Your task to perform on an android device: Go to location settings Image 0: 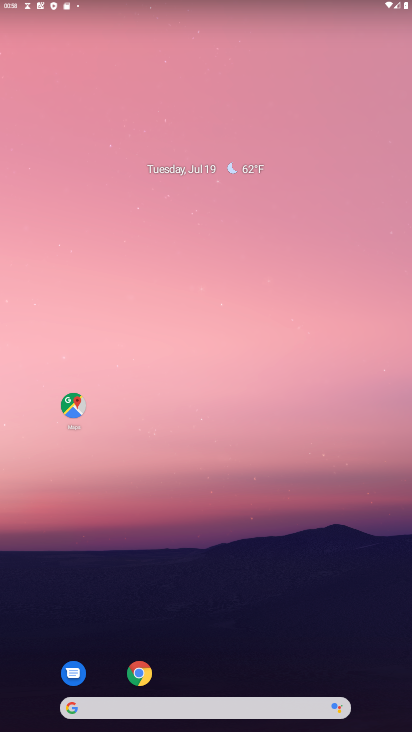
Step 0: click (213, 223)
Your task to perform on an android device: Go to location settings Image 1: 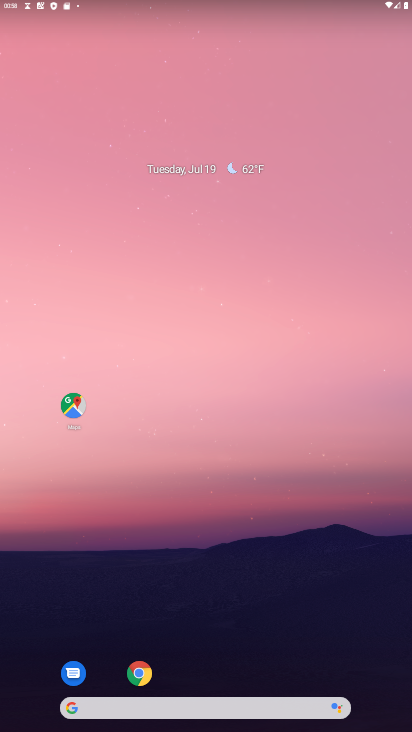
Step 1: drag from (207, 535) to (213, 230)
Your task to perform on an android device: Go to location settings Image 2: 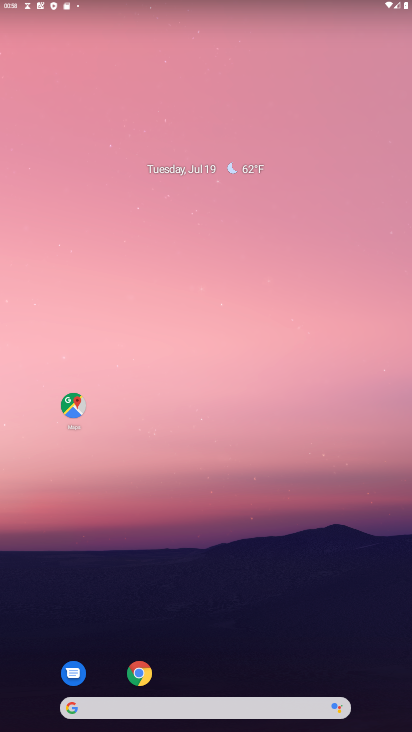
Step 2: drag from (186, 588) to (251, 255)
Your task to perform on an android device: Go to location settings Image 3: 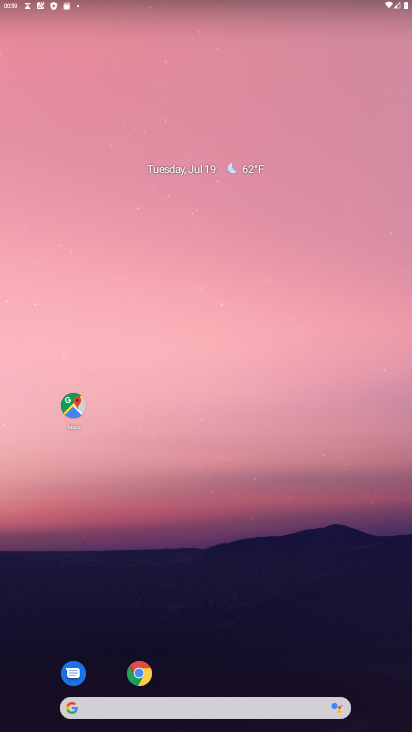
Step 3: drag from (287, 647) to (279, 388)
Your task to perform on an android device: Go to location settings Image 4: 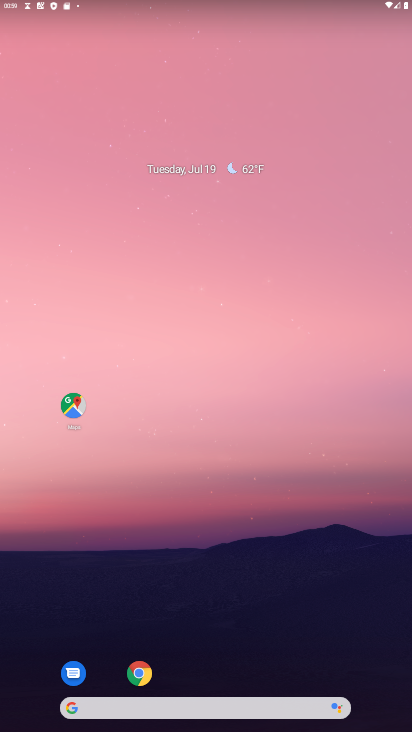
Step 4: drag from (219, 651) to (216, 243)
Your task to perform on an android device: Go to location settings Image 5: 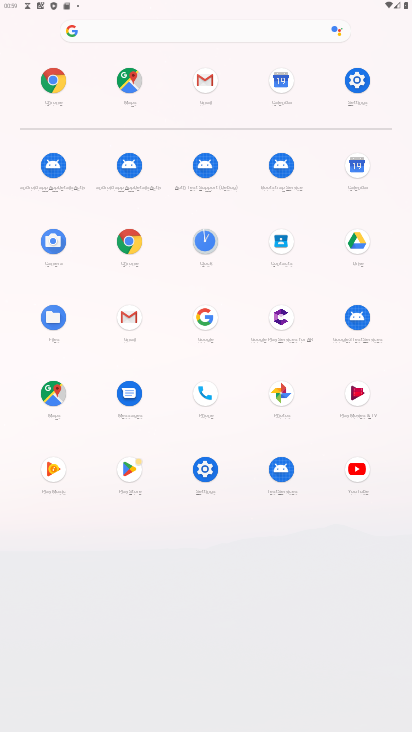
Step 5: click (349, 81)
Your task to perform on an android device: Go to location settings Image 6: 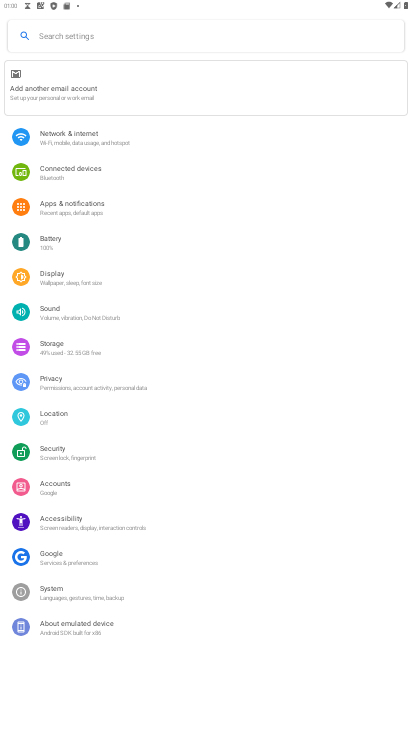
Step 6: click (81, 409)
Your task to perform on an android device: Go to location settings Image 7: 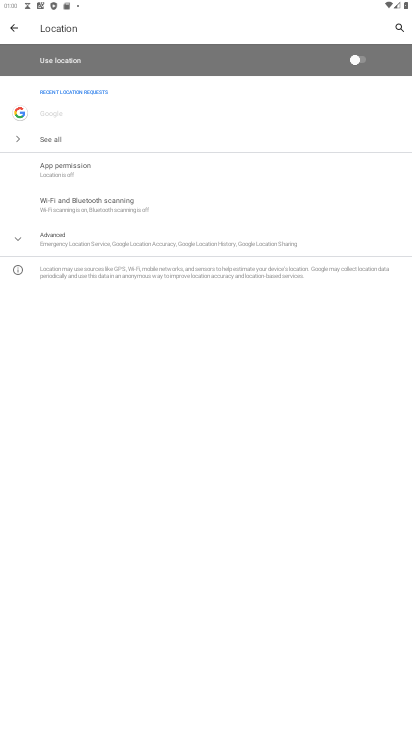
Step 7: task complete